Your task to perform on an android device: Search for "apple airpods" on bestbuy, select the first entry, and add it to the cart. Image 0: 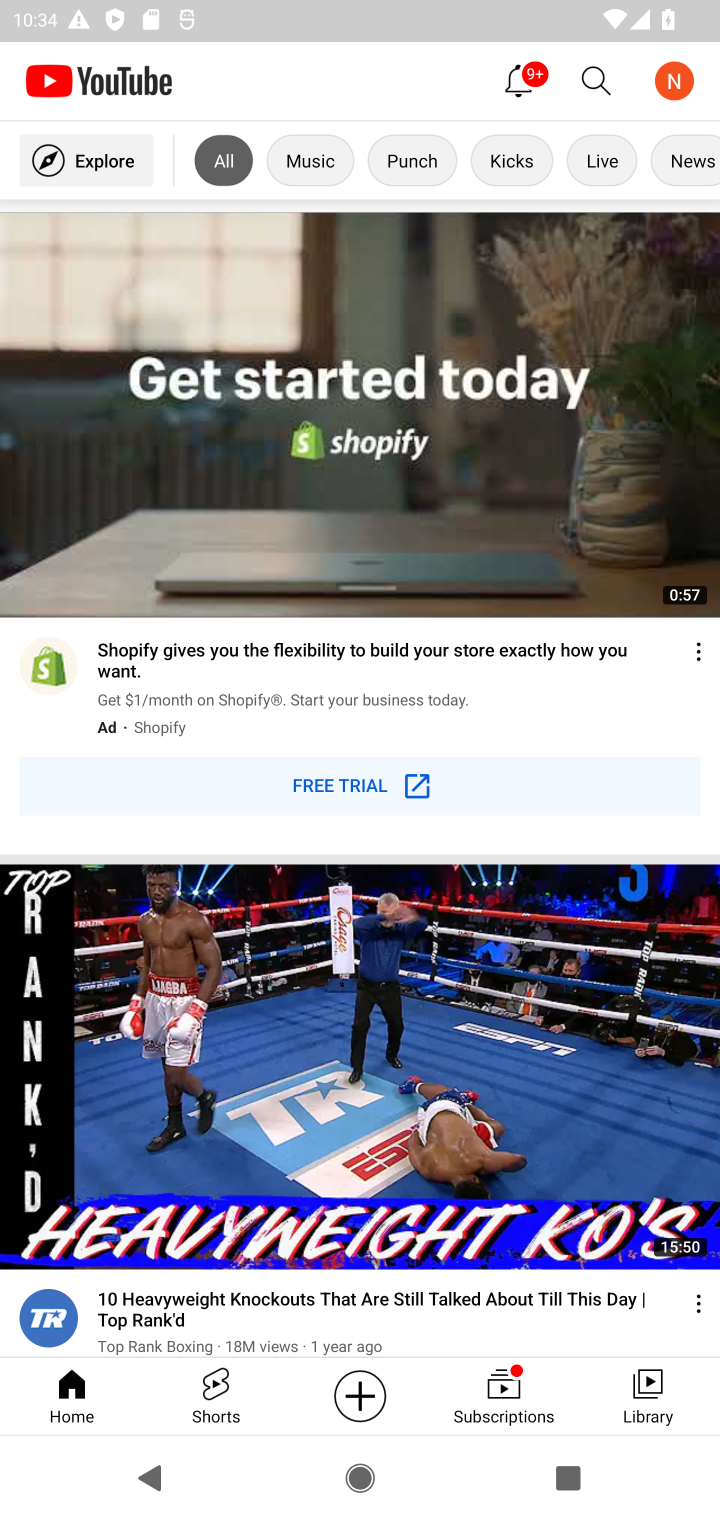
Step 0: press home button
Your task to perform on an android device: Search for "apple airpods" on bestbuy, select the first entry, and add it to the cart. Image 1: 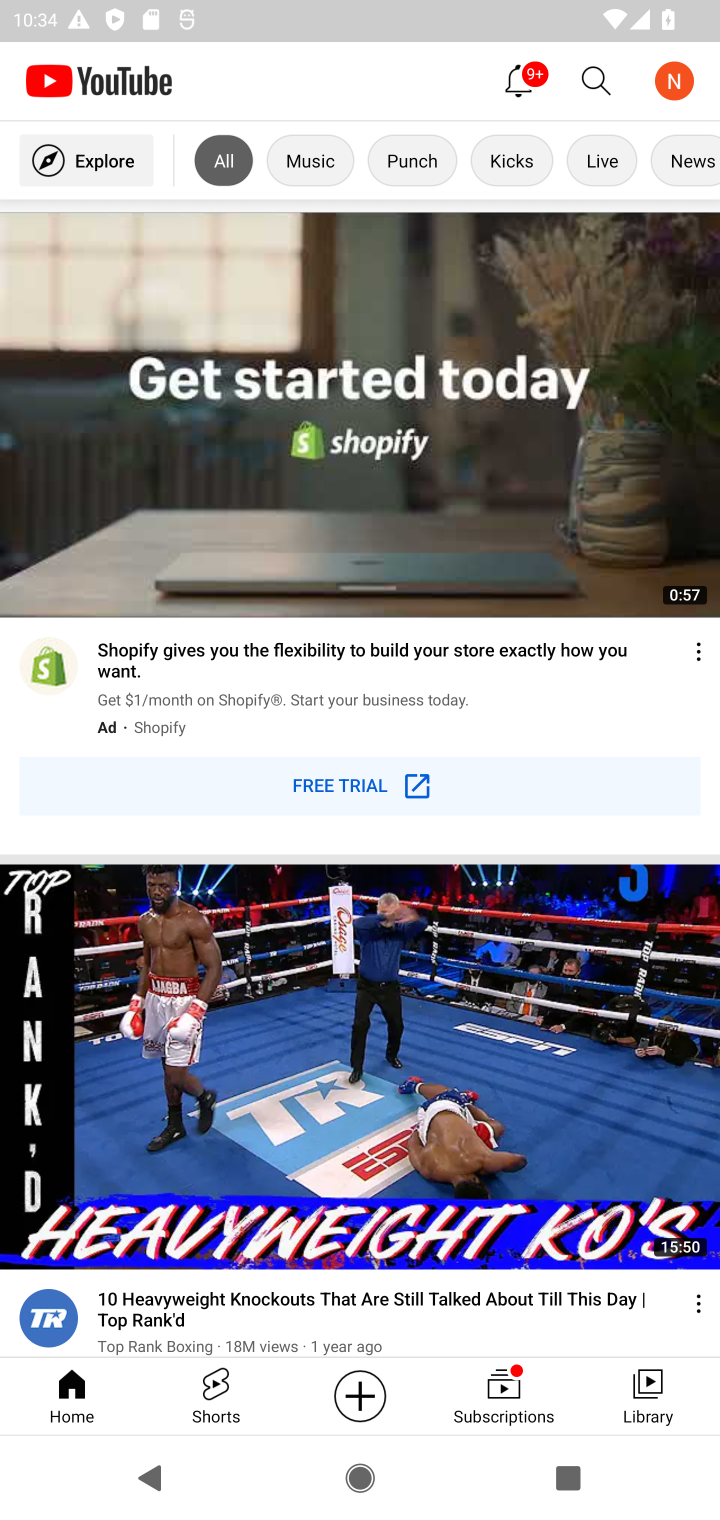
Step 1: press home button
Your task to perform on an android device: Search for "apple airpods" on bestbuy, select the first entry, and add it to the cart. Image 2: 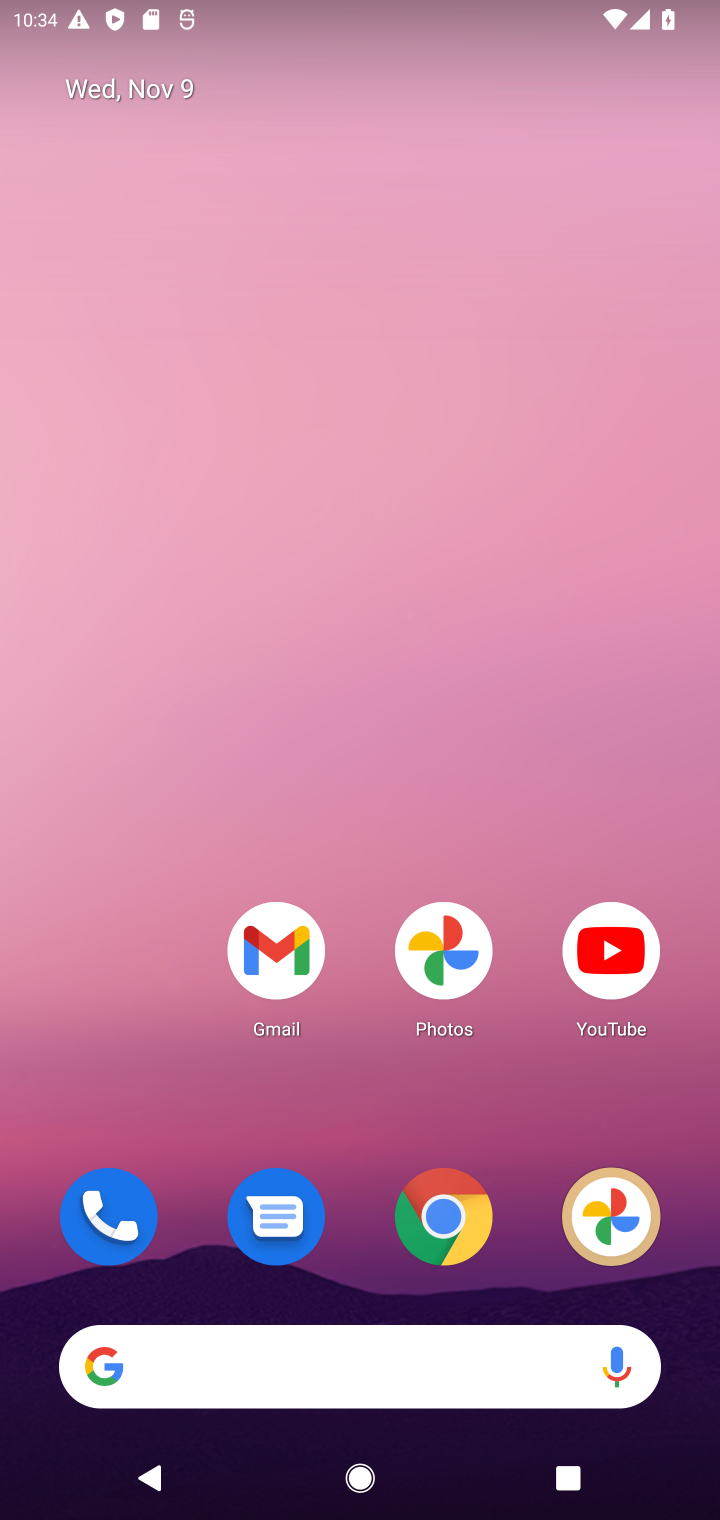
Step 2: drag from (402, 429) to (446, 197)
Your task to perform on an android device: Search for "apple airpods" on bestbuy, select the first entry, and add it to the cart. Image 3: 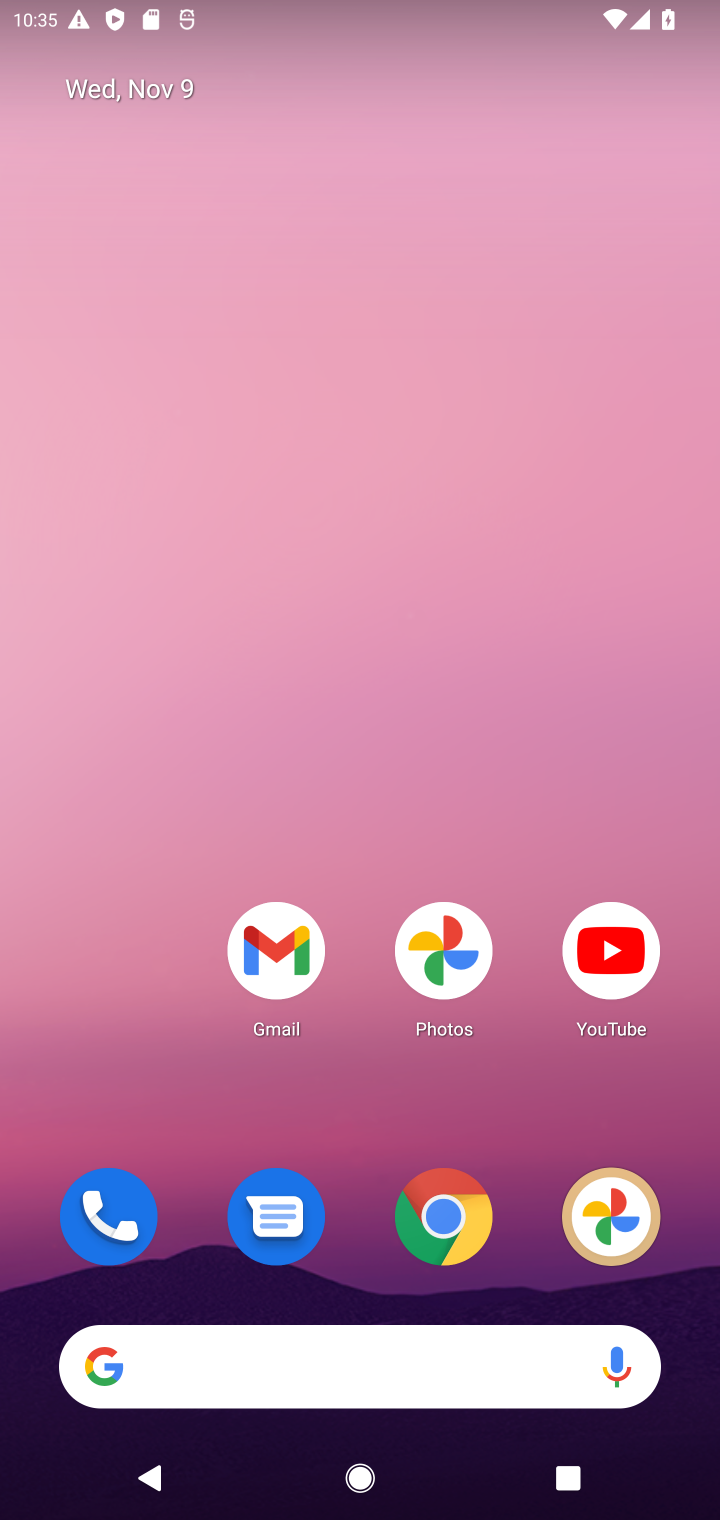
Step 3: drag from (330, 873) to (281, 121)
Your task to perform on an android device: Search for "apple airpods" on bestbuy, select the first entry, and add it to the cart. Image 4: 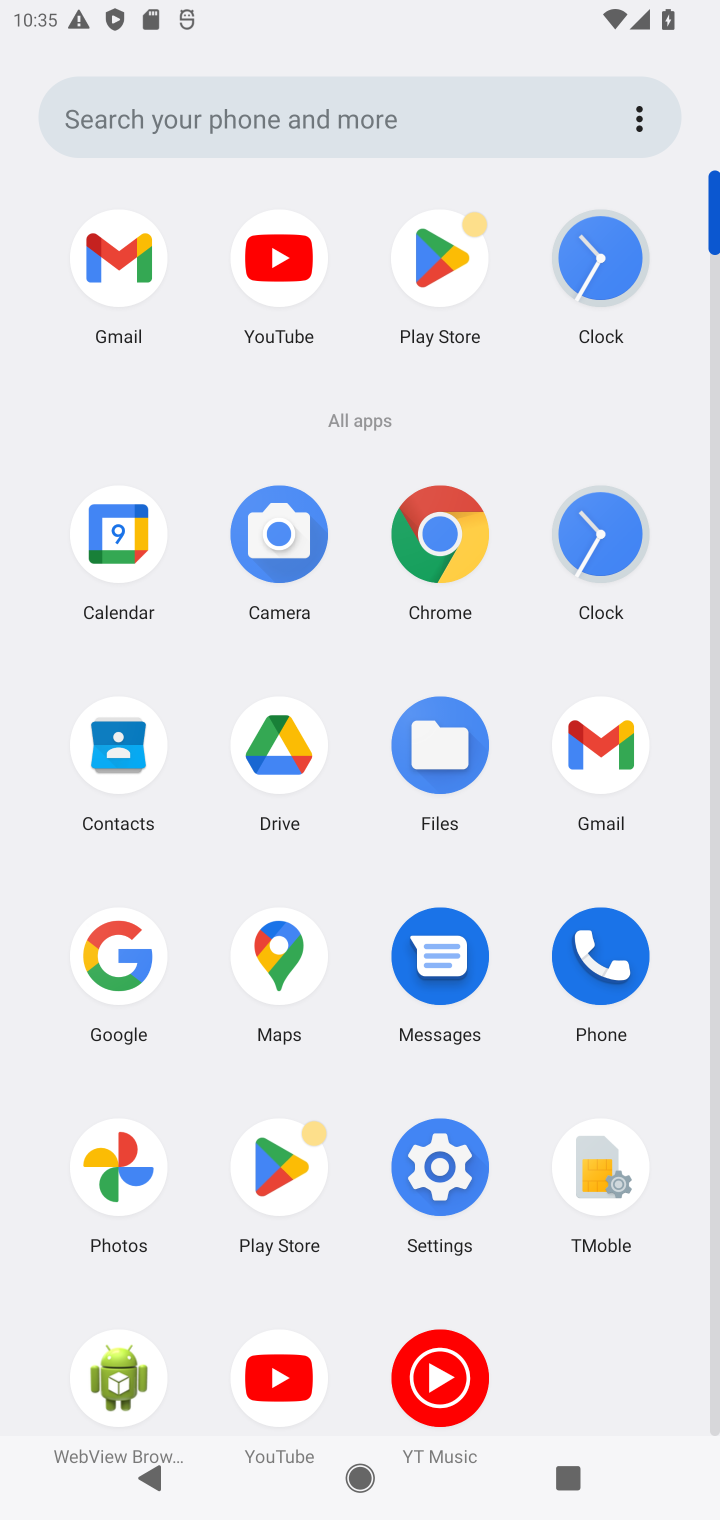
Step 4: click (431, 536)
Your task to perform on an android device: Search for "apple airpods" on bestbuy, select the first entry, and add it to the cart. Image 5: 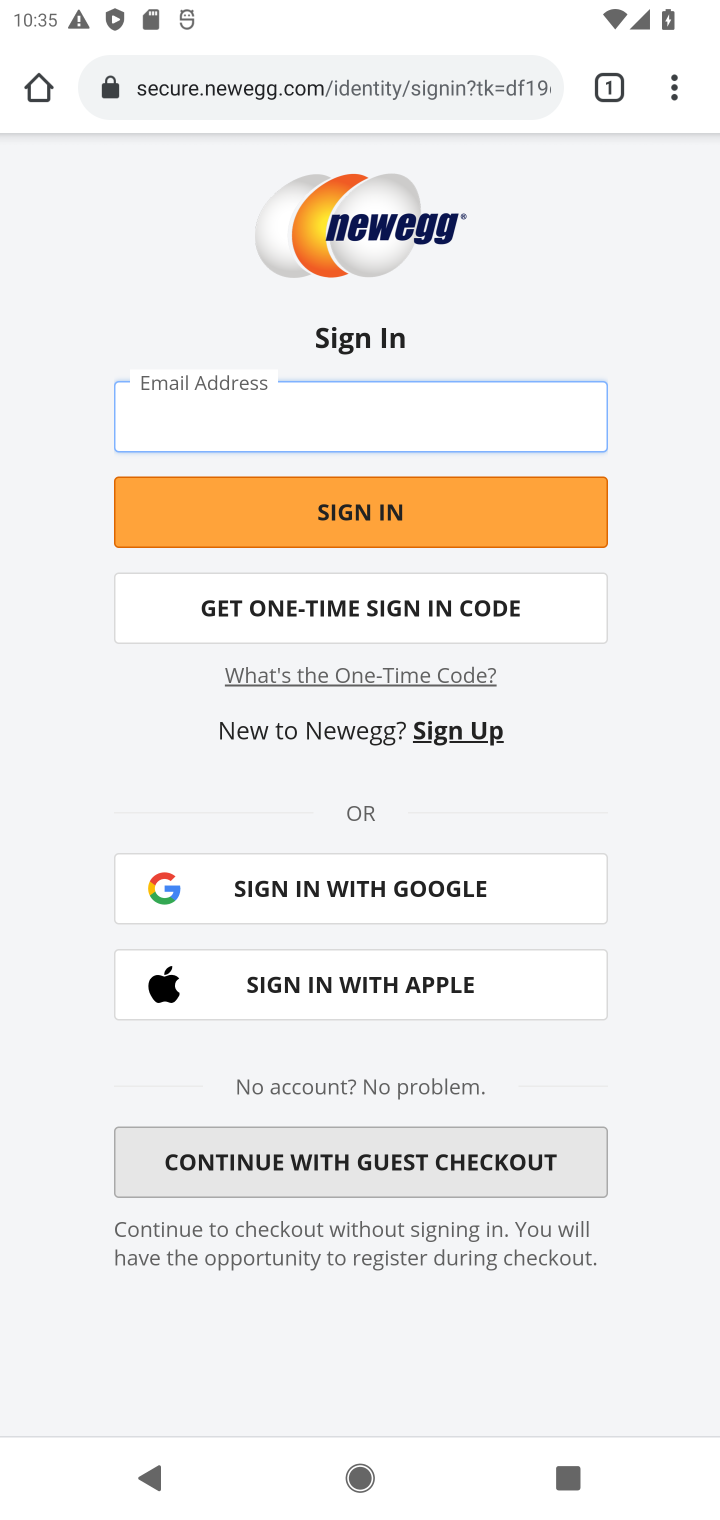
Step 5: click (321, 99)
Your task to perform on an android device: Search for "apple airpods" on bestbuy, select the first entry, and add it to the cart. Image 6: 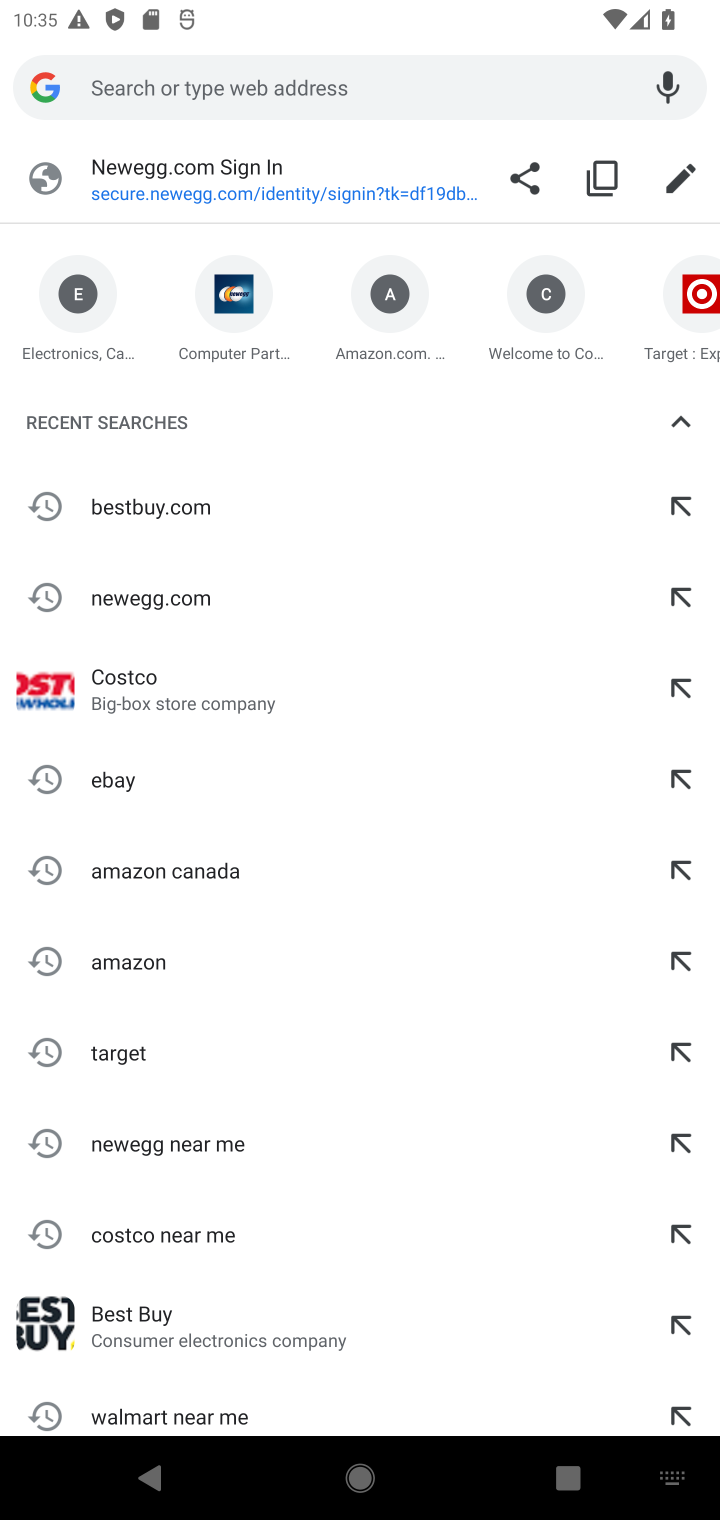
Step 6: type "bestbuy.com"
Your task to perform on an android device: Search for "apple airpods" on bestbuy, select the first entry, and add it to the cart. Image 7: 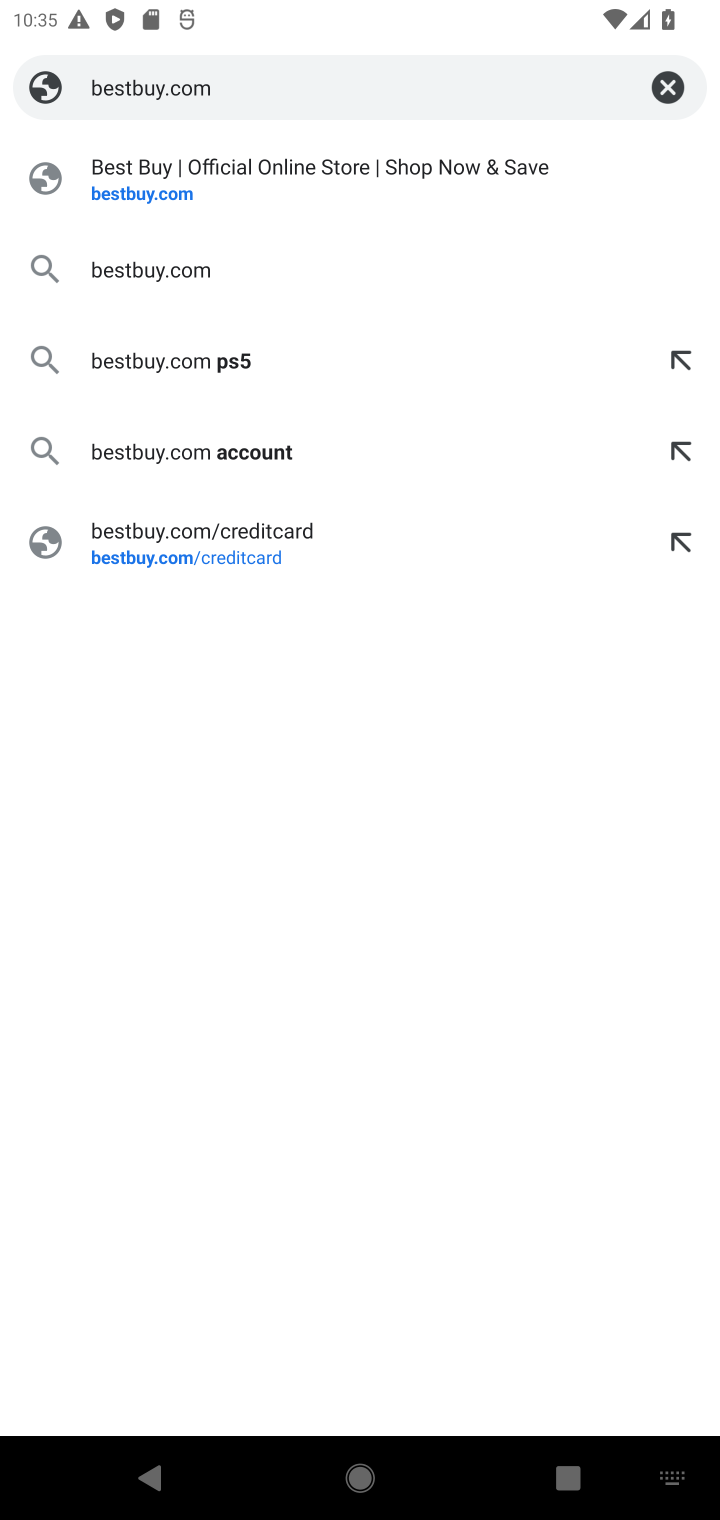
Step 7: press enter
Your task to perform on an android device: Search for "apple airpods" on bestbuy, select the first entry, and add it to the cart. Image 8: 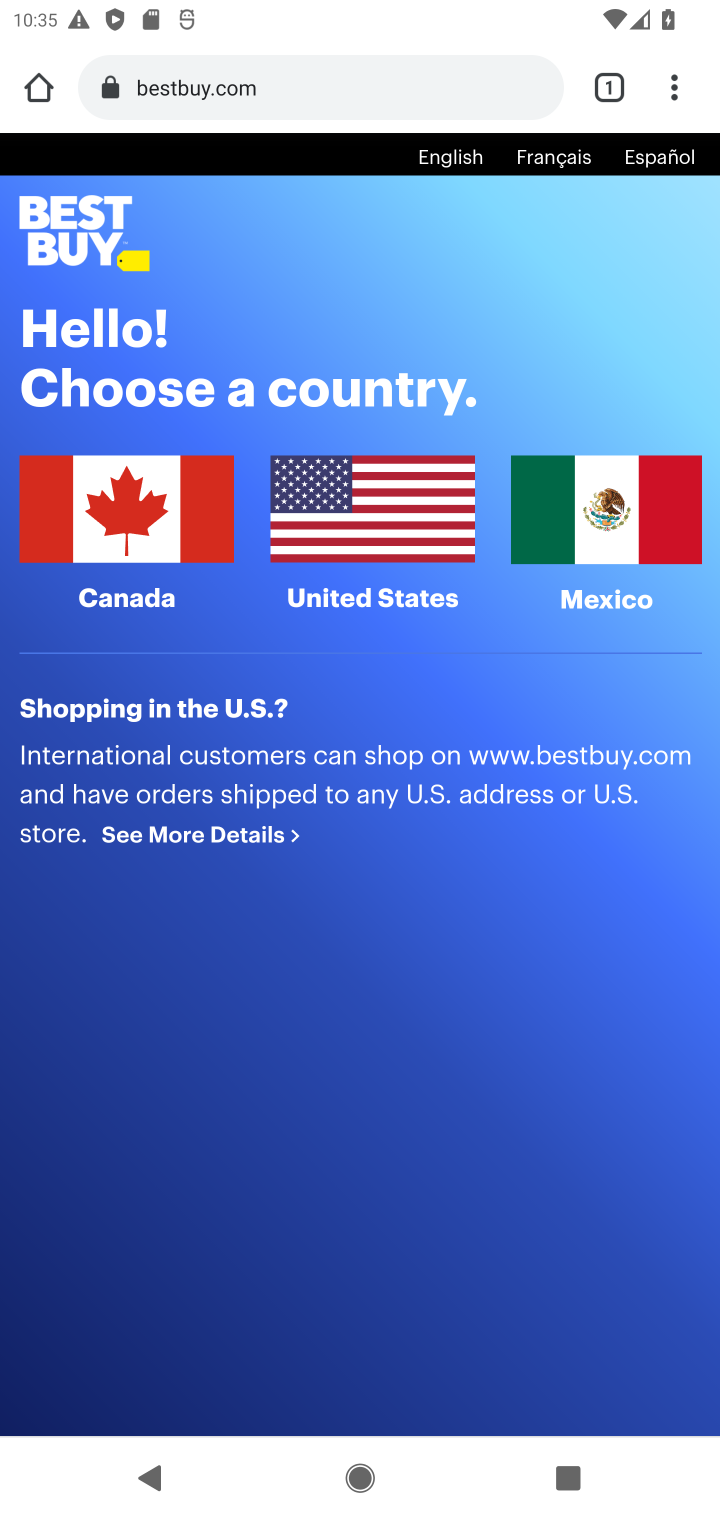
Step 8: click (145, 513)
Your task to perform on an android device: Search for "apple airpods" on bestbuy, select the first entry, and add it to the cart. Image 9: 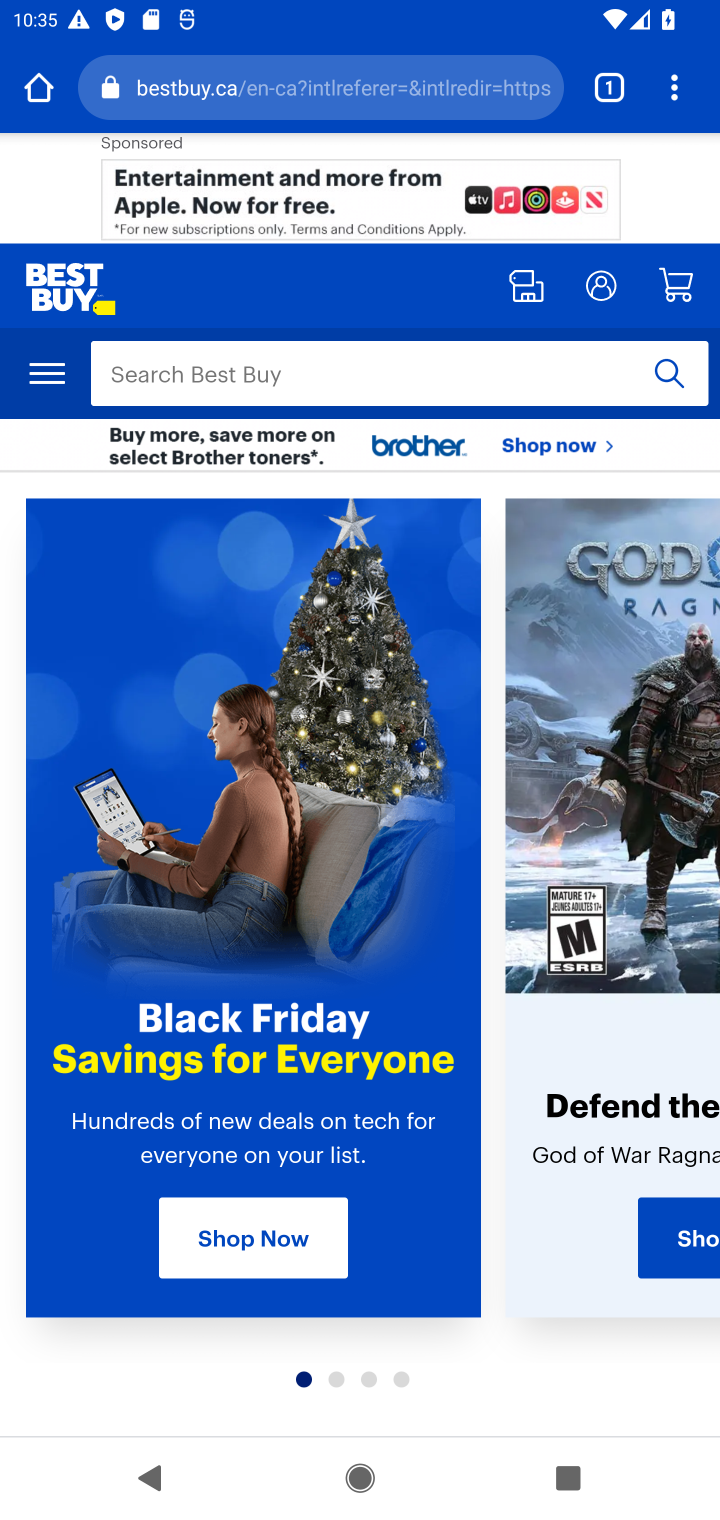
Step 9: click (253, 363)
Your task to perform on an android device: Search for "apple airpods" on bestbuy, select the first entry, and add it to the cart. Image 10: 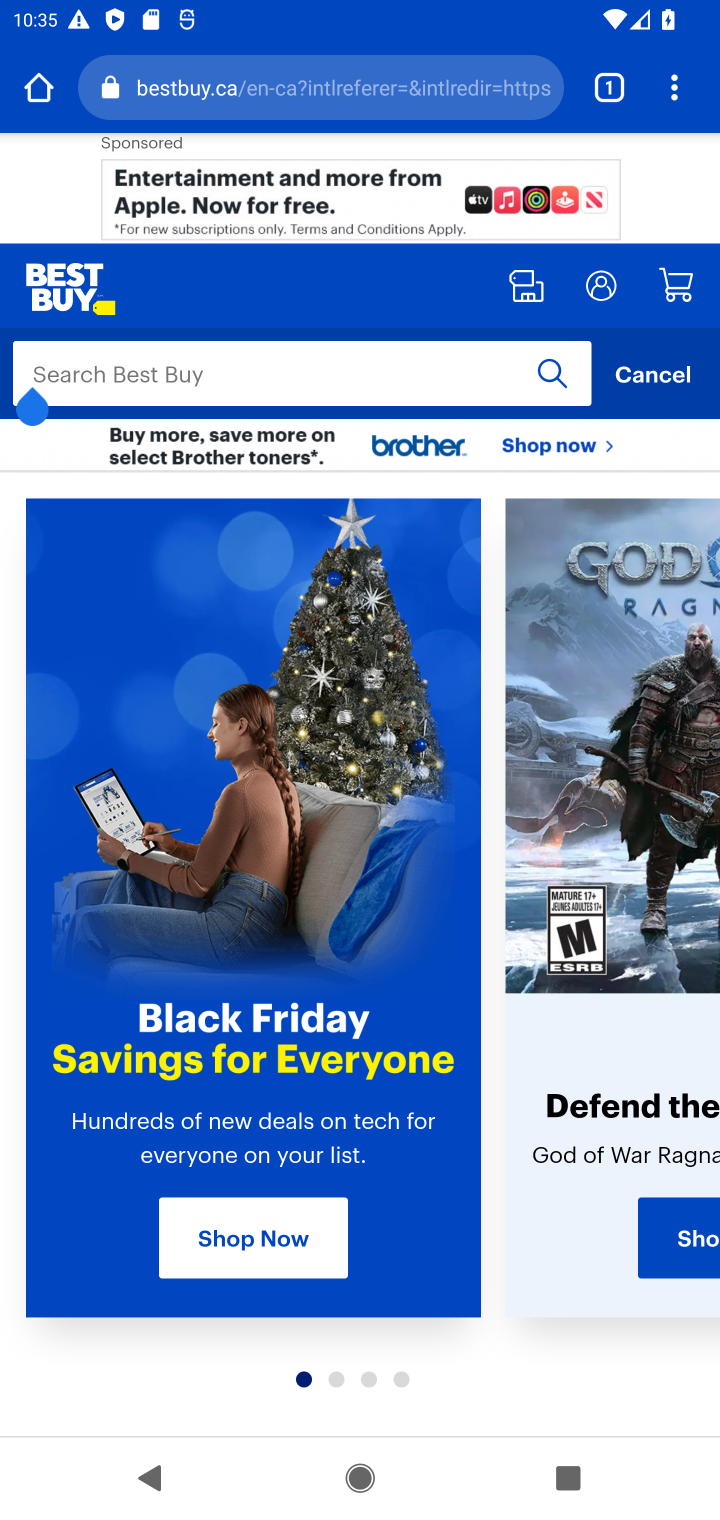
Step 10: type "apple airpods"
Your task to perform on an android device: Search for "apple airpods" on bestbuy, select the first entry, and add it to the cart. Image 11: 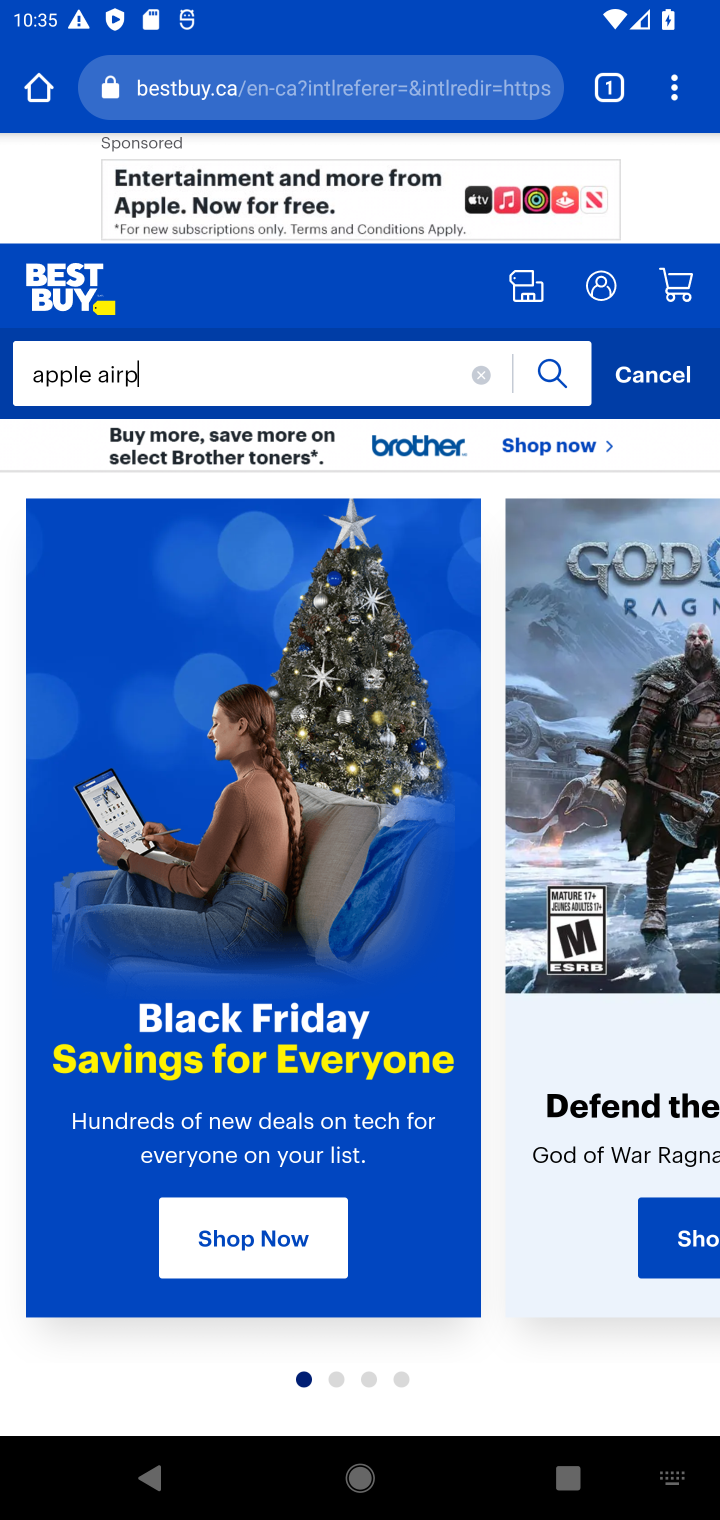
Step 11: press enter
Your task to perform on an android device: Search for "apple airpods" on bestbuy, select the first entry, and add it to the cart. Image 12: 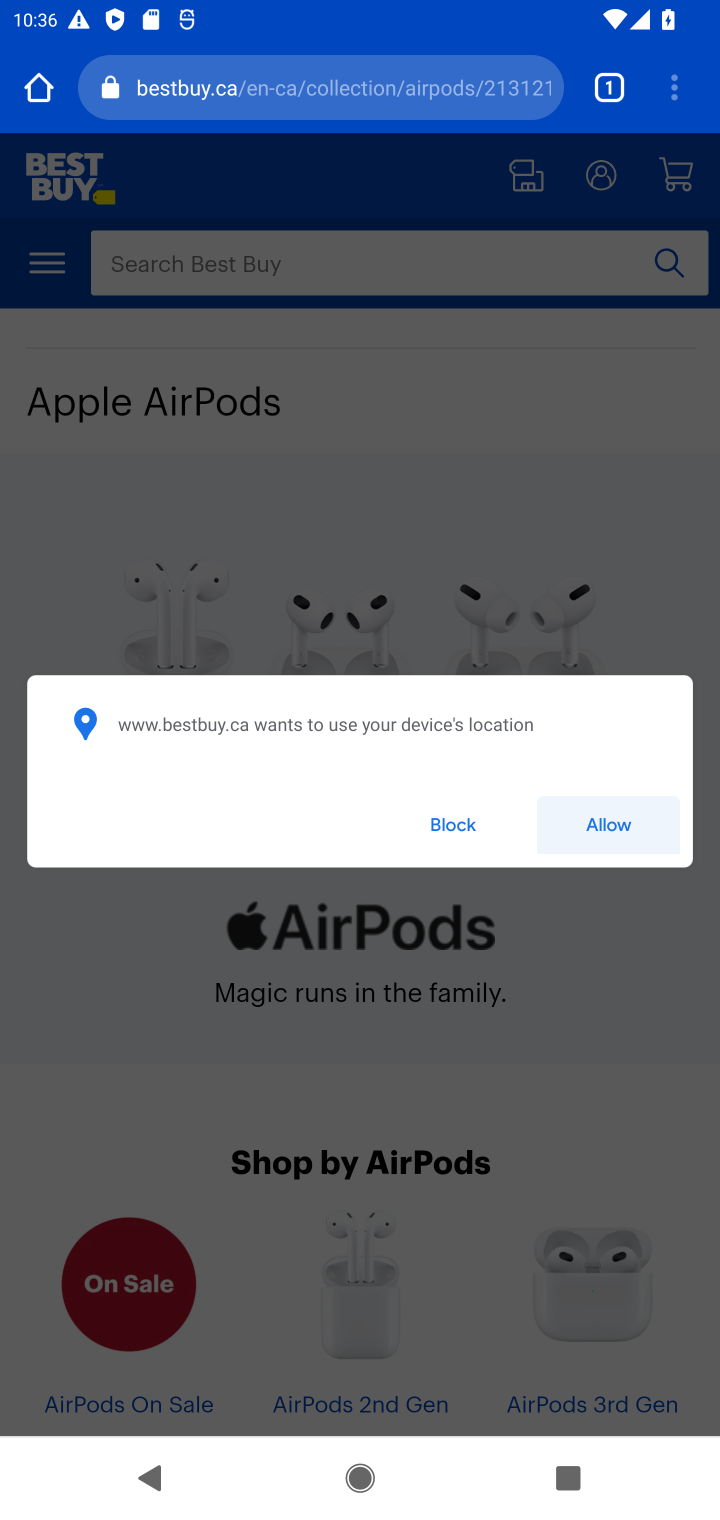
Step 12: click (472, 829)
Your task to perform on an android device: Search for "apple airpods" on bestbuy, select the first entry, and add it to the cart. Image 13: 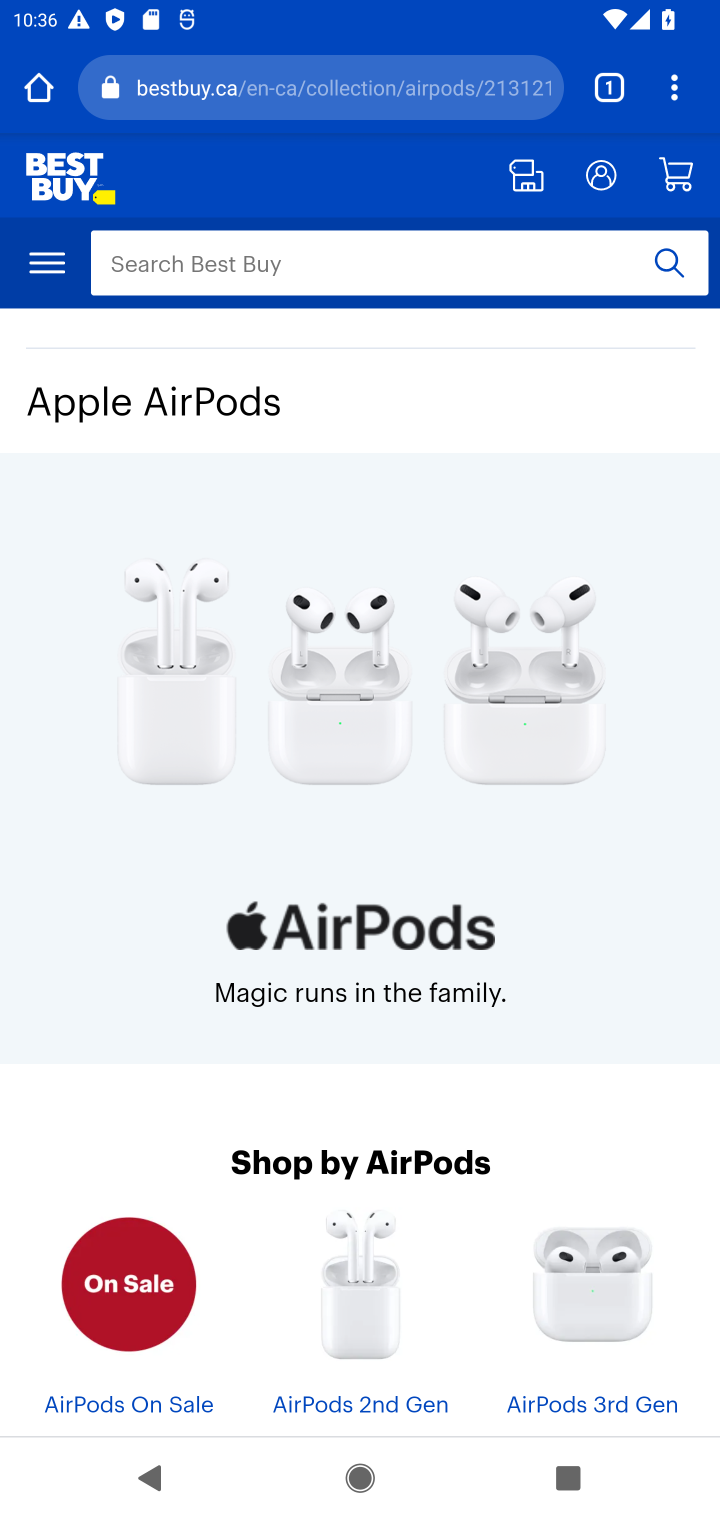
Step 13: drag from (595, 1164) to (631, 449)
Your task to perform on an android device: Search for "apple airpods" on bestbuy, select the first entry, and add it to the cart. Image 14: 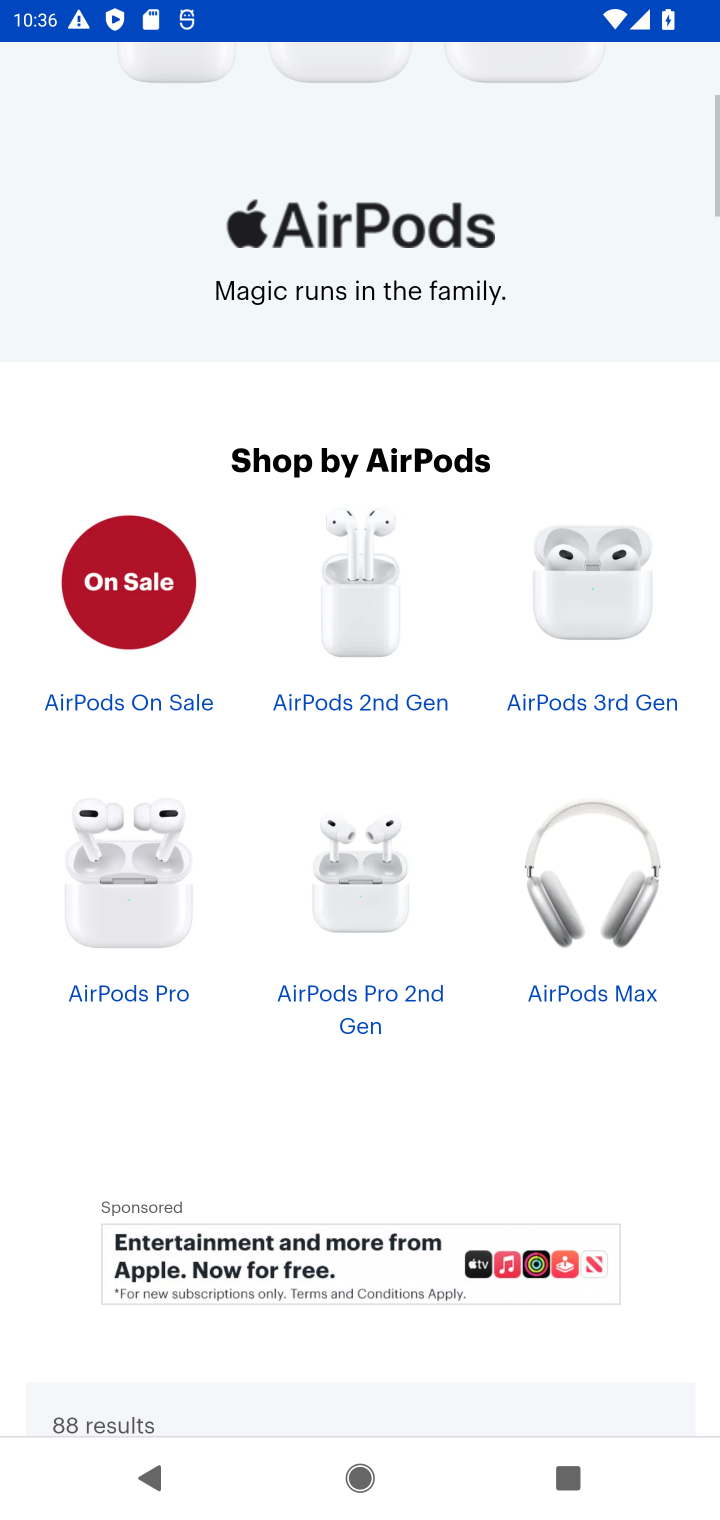
Step 14: drag from (404, 1077) to (443, 317)
Your task to perform on an android device: Search for "apple airpods" on bestbuy, select the first entry, and add it to the cart. Image 15: 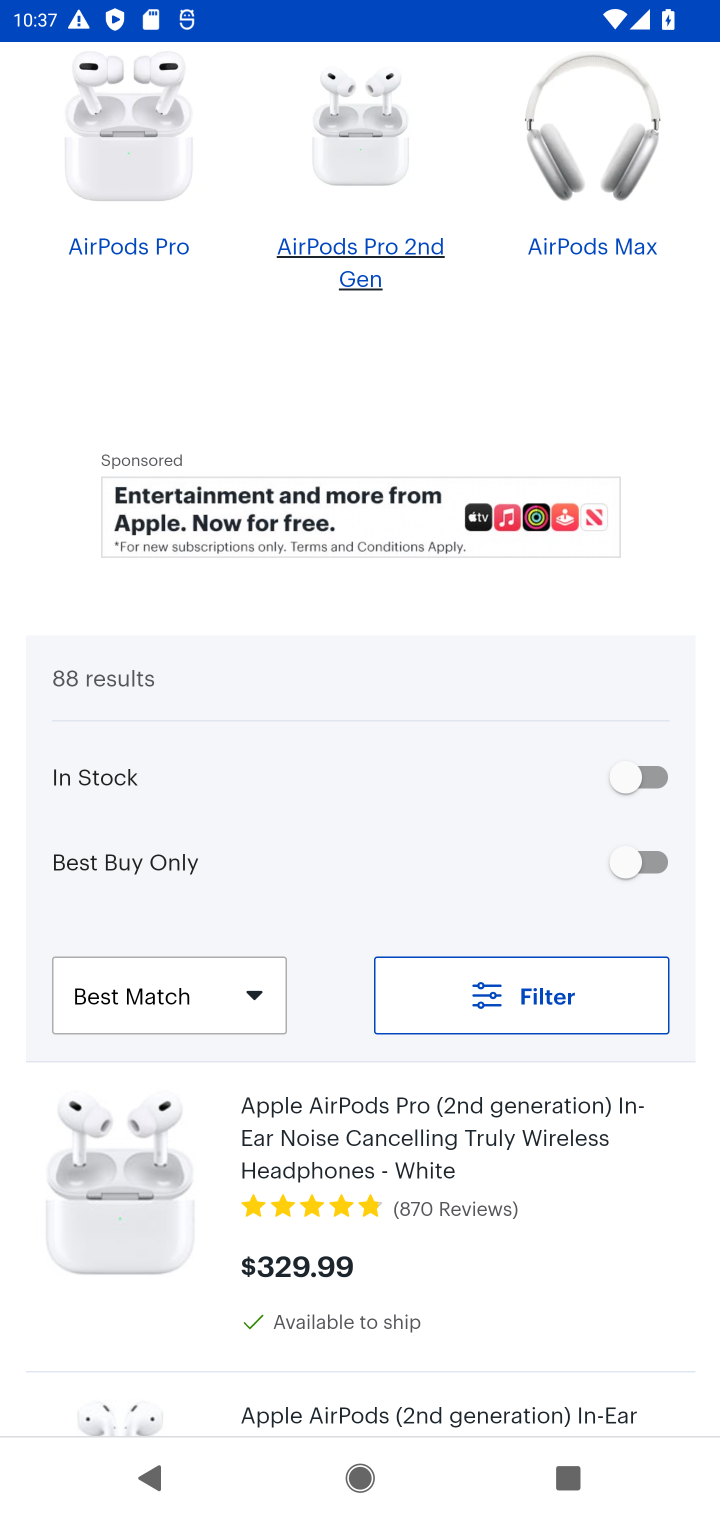
Step 15: click (376, 1135)
Your task to perform on an android device: Search for "apple airpods" on bestbuy, select the first entry, and add it to the cart. Image 16: 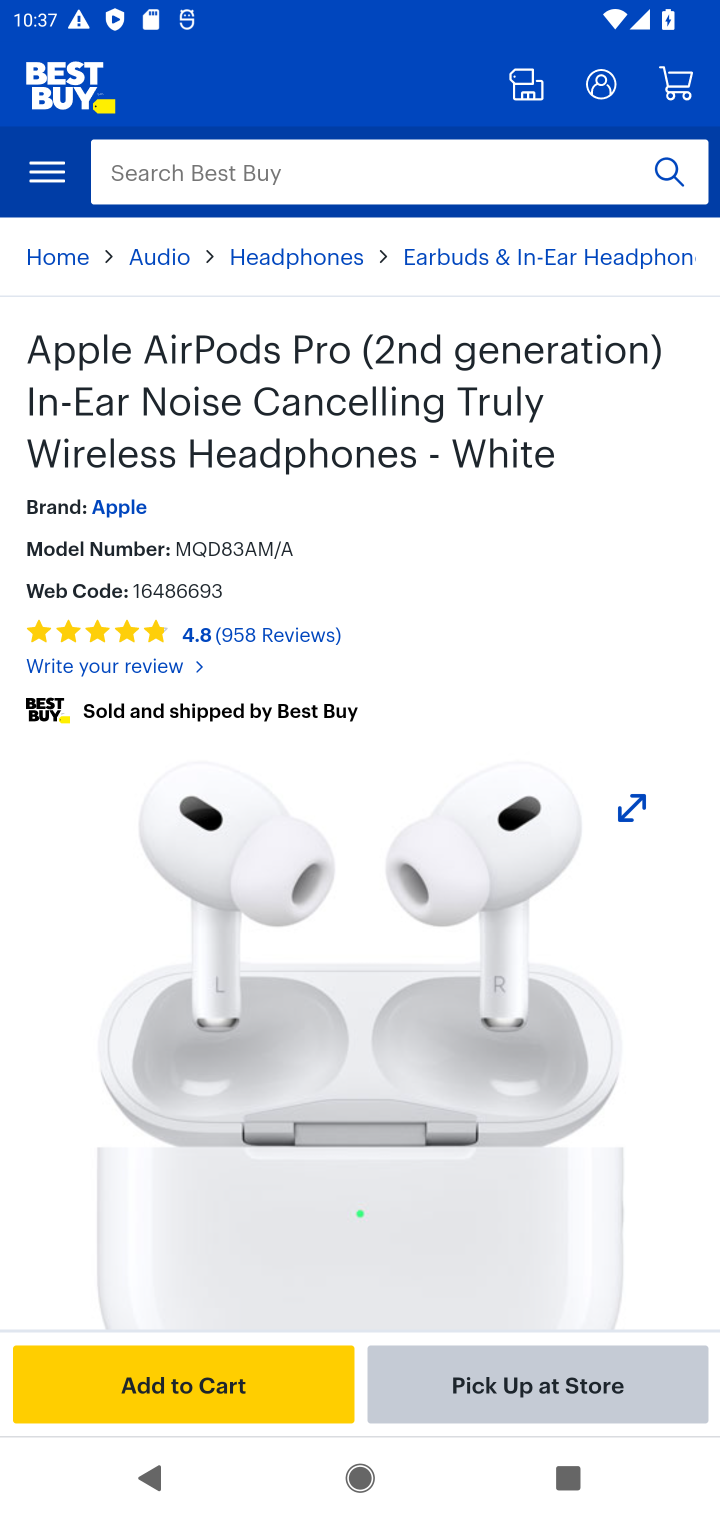
Step 16: drag from (397, 1115) to (386, 219)
Your task to perform on an android device: Search for "apple airpods" on bestbuy, select the first entry, and add it to the cart. Image 17: 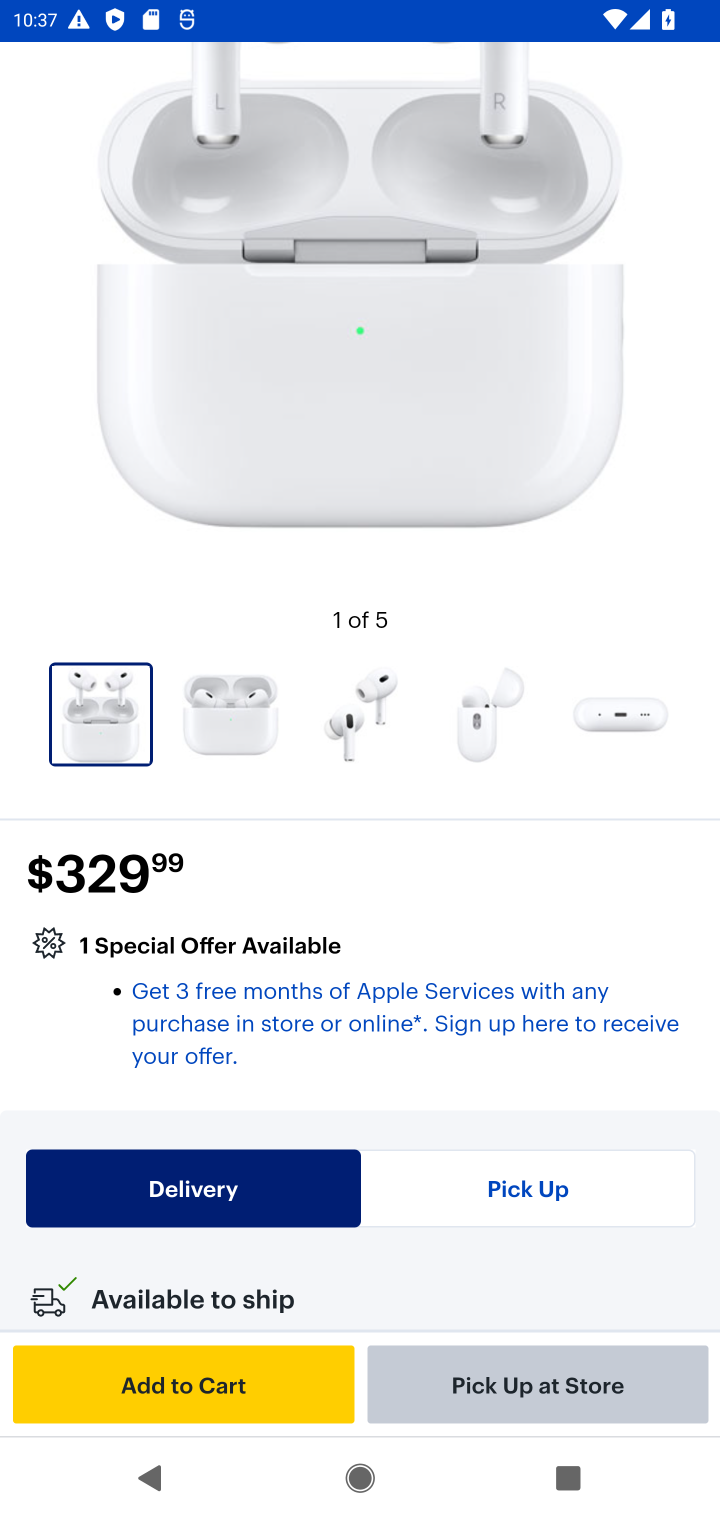
Step 17: click (195, 1404)
Your task to perform on an android device: Search for "apple airpods" on bestbuy, select the first entry, and add it to the cart. Image 18: 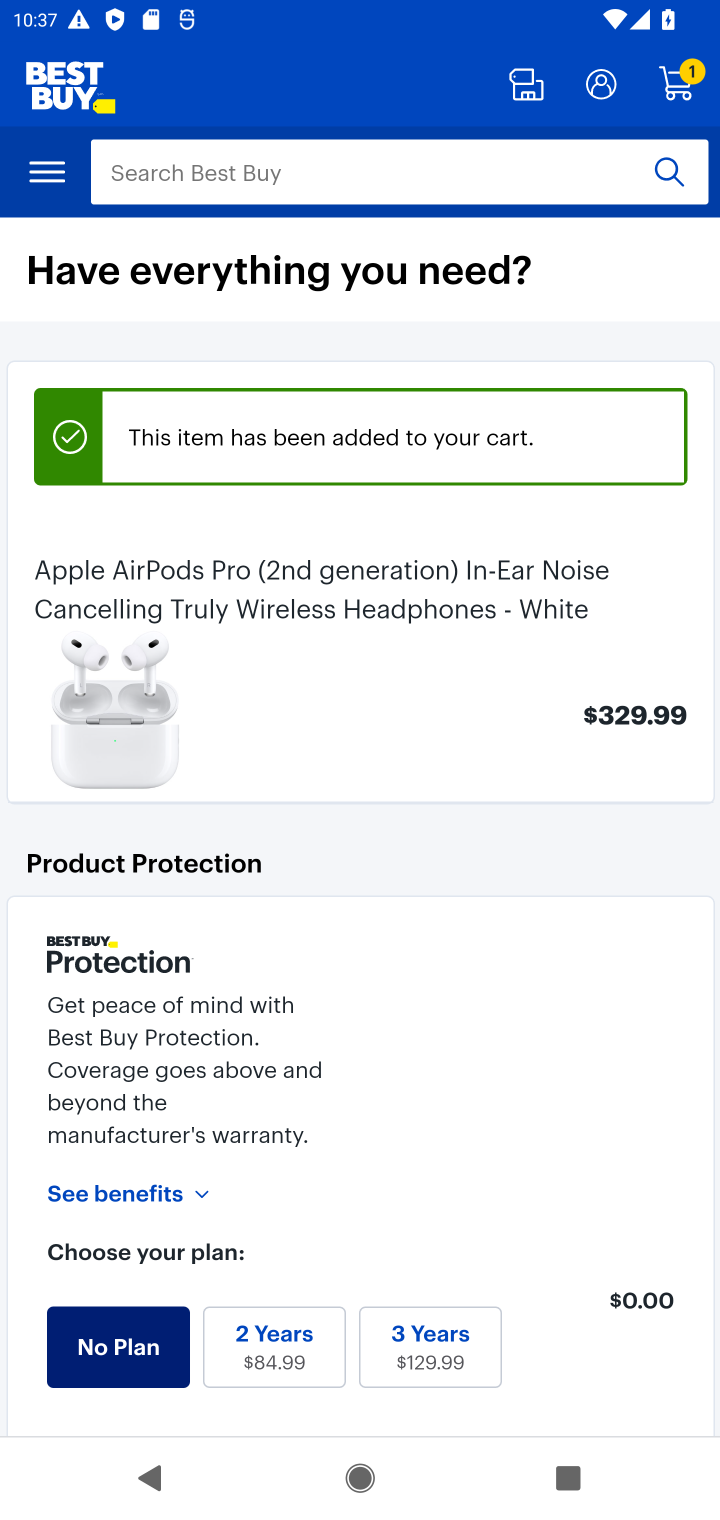
Step 18: task complete